Your task to perform on an android device: Search for flights from NYC to Sydney Image 0: 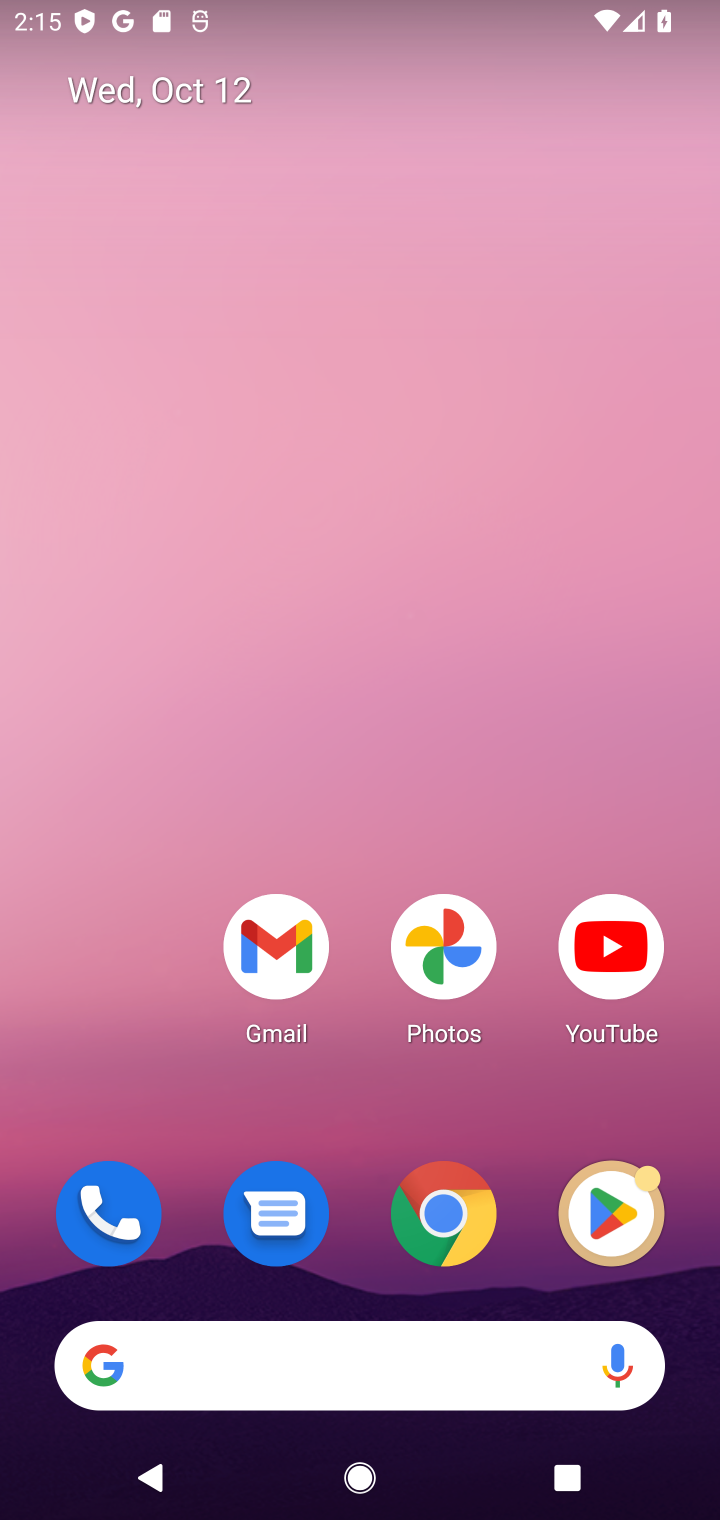
Step 0: click (317, 1365)
Your task to perform on an android device: Search for flights from NYC to Sydney Image 1: 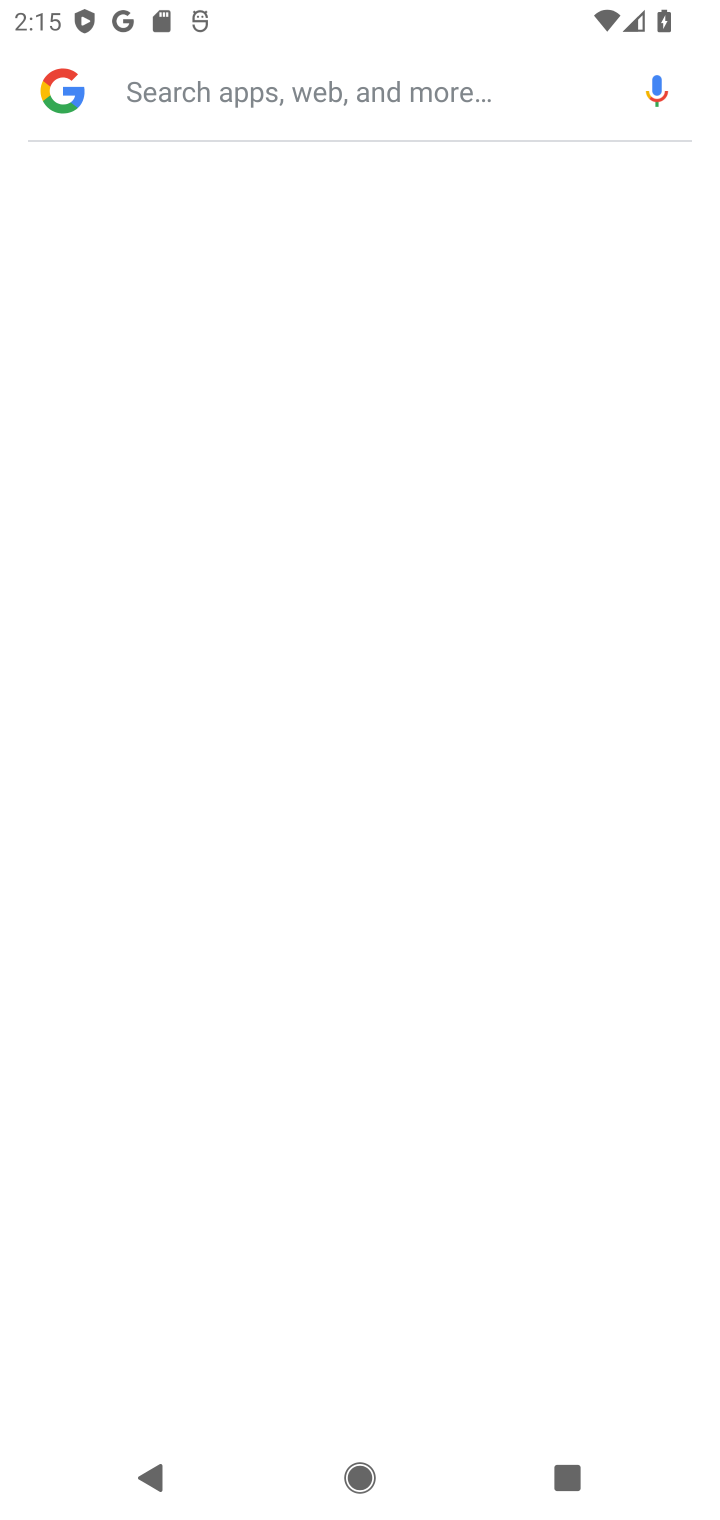
Step 1: click (293, 1353)
Your task to perform on an android device: Search for flights from NYC to Sydney Image 2: 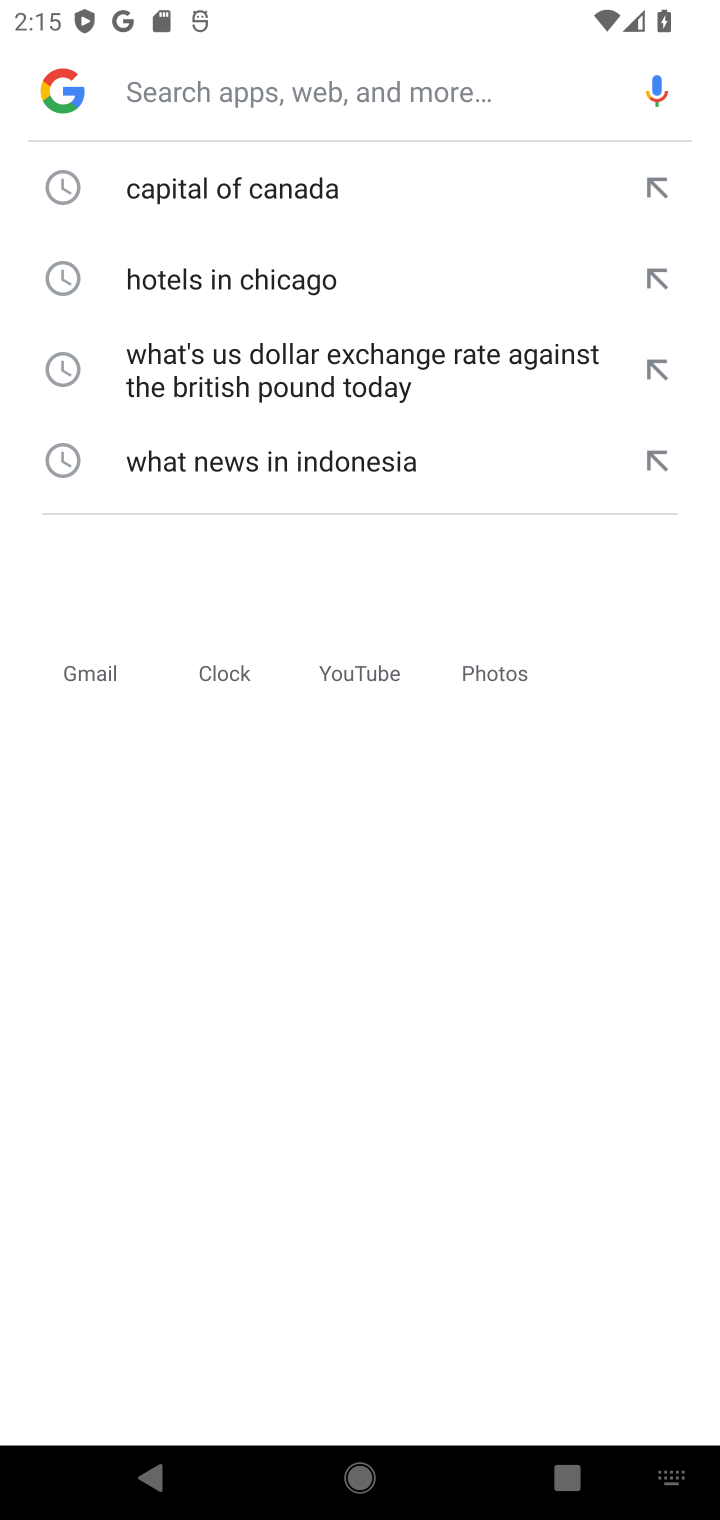
Step 2: click (248, 73)
Your task to perform on an android device: Search for flights from NYC to Sydney Image 3: 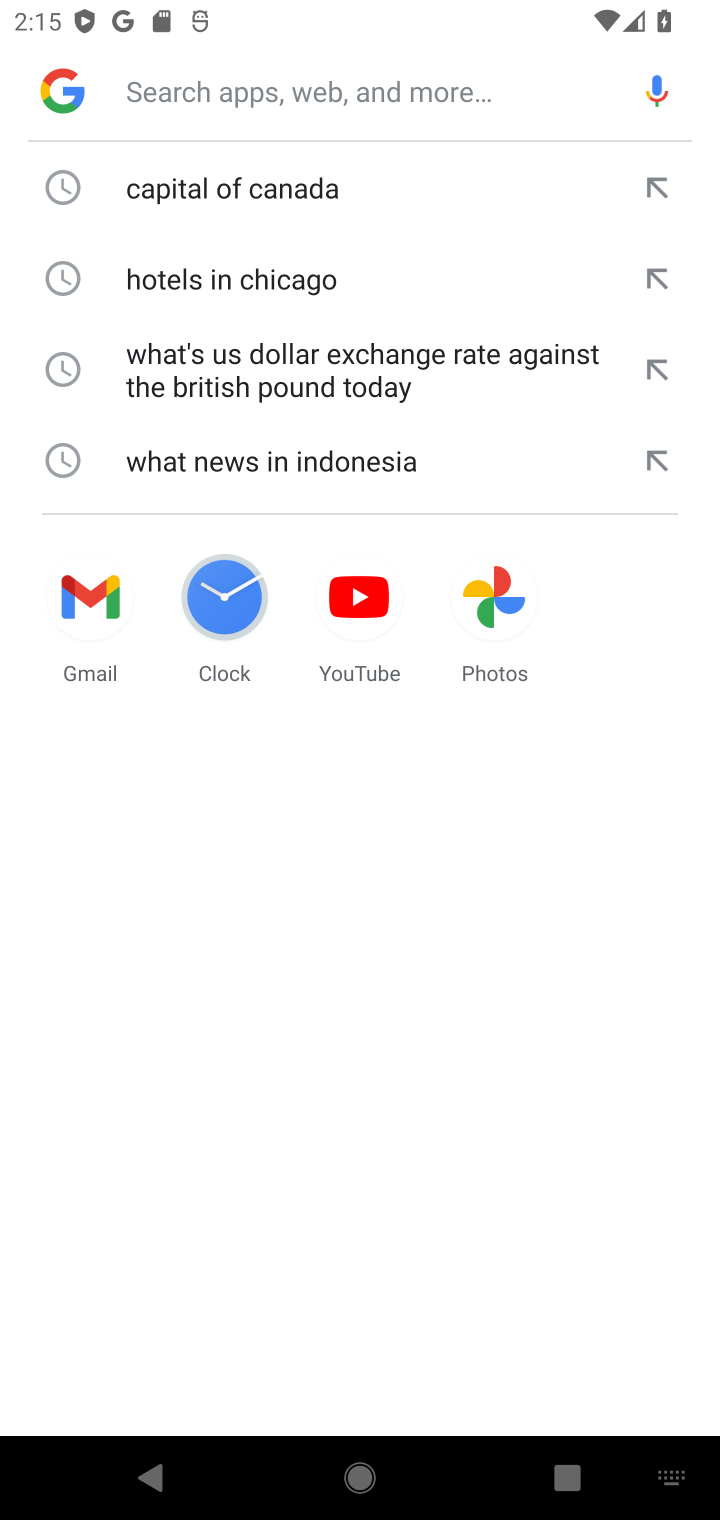
Step 3: type "flights from NYC to Sydney"
Your task to perform on an android device: Search for flights from NYC to Sydney Image 4: 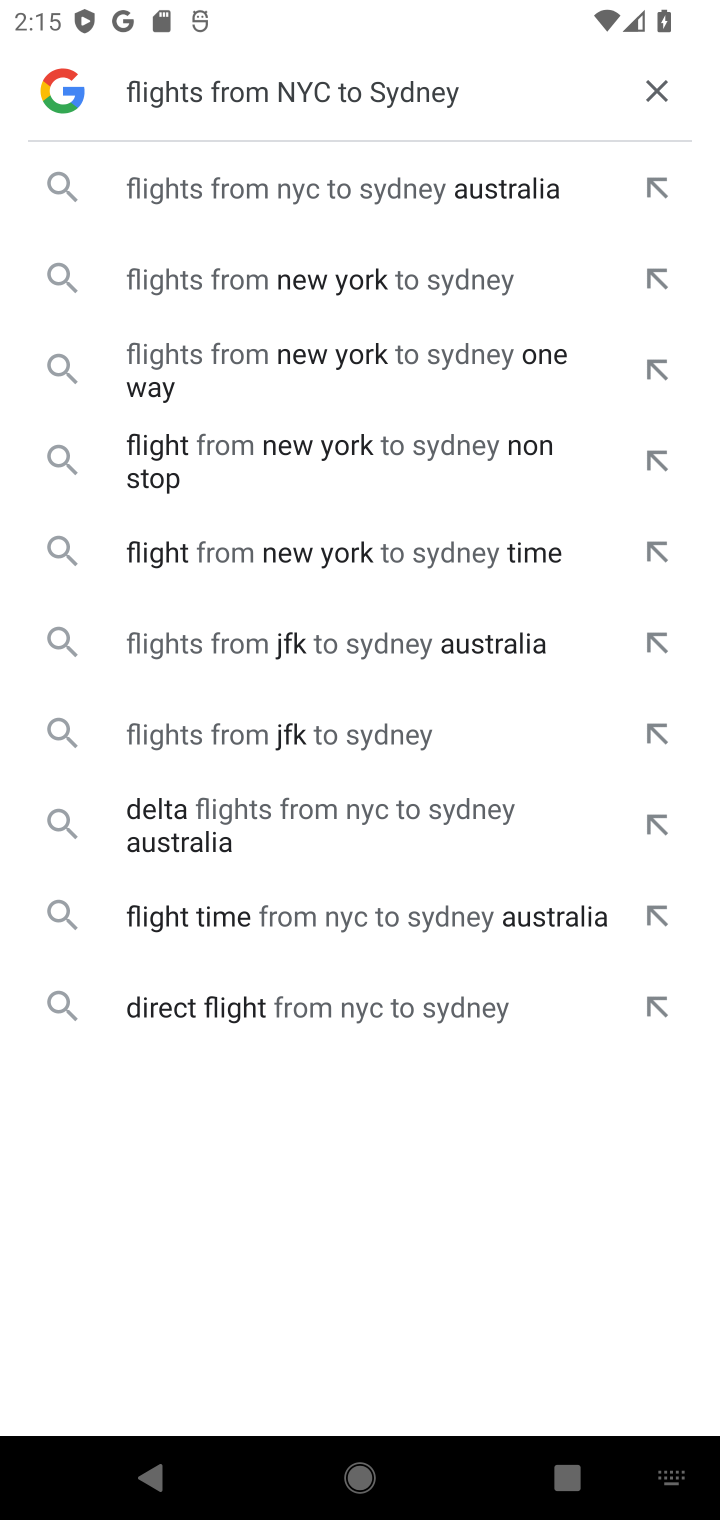
Step 4: click (307, 290)
Your task to perform on an android device: Search for flights from NYC to Sydney Image 5: 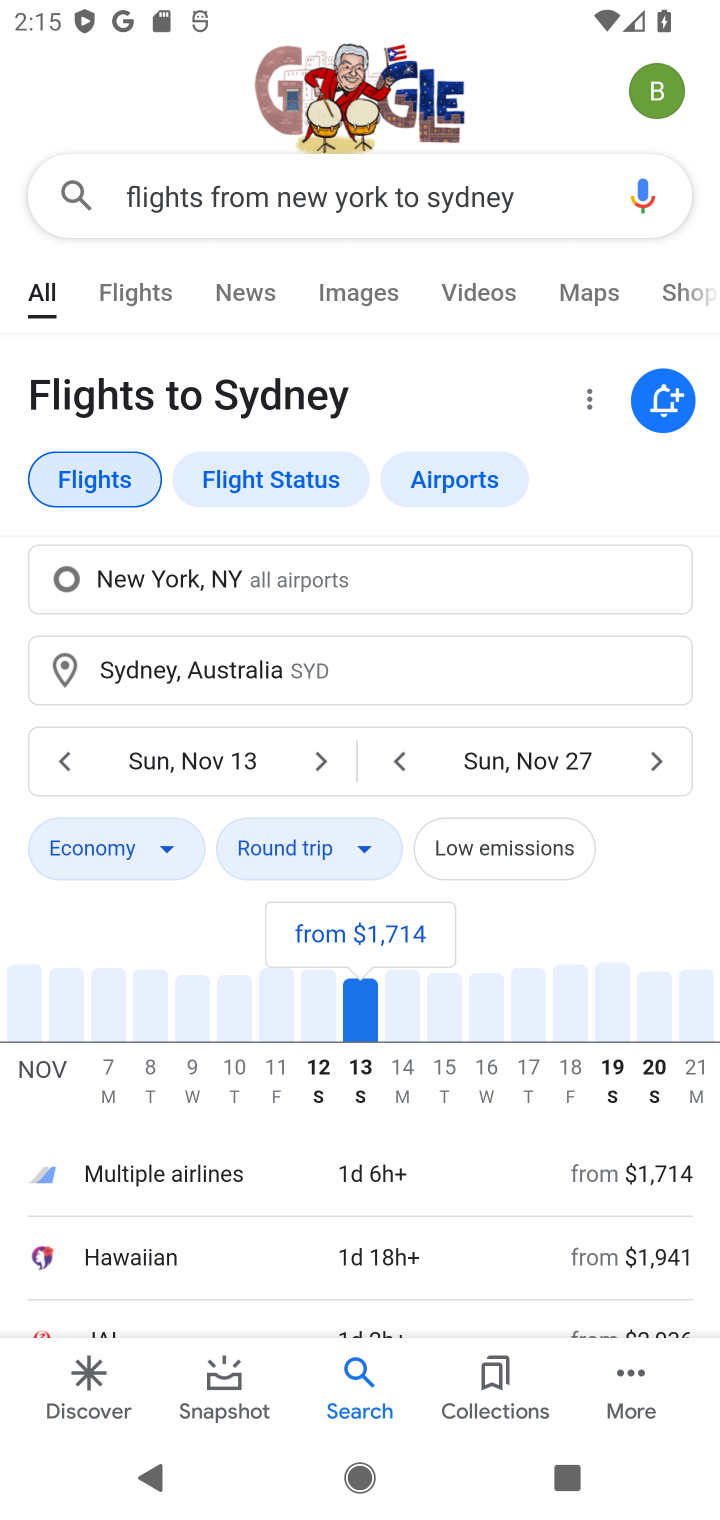
Step 5: task complete